Your task to perform on an android device: toggle airplane mode Image 0: 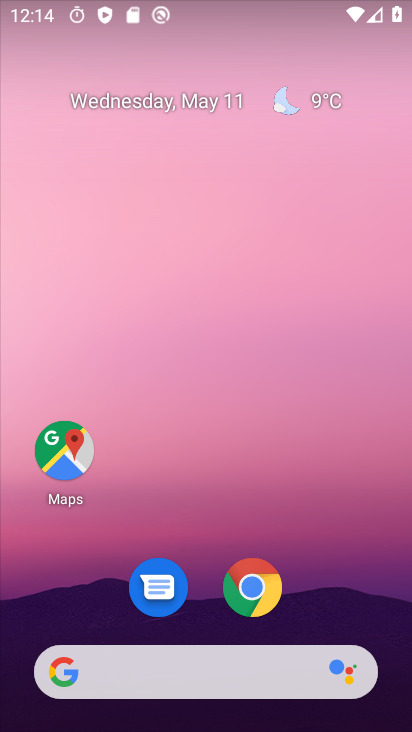
Step 0: drag from (370, 586) to (196, 70)
Your task to perform on an android device: toggle airplane mode Image 1: 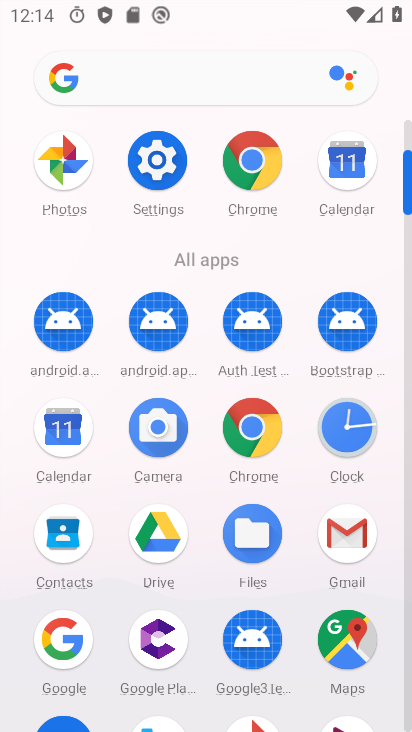
Step 1: click (170, 143)
Your task to perform on an android device: toggle airplane mode Image 2: 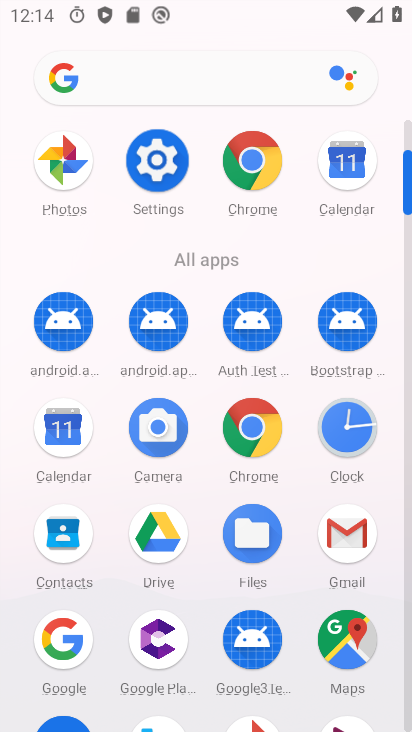
Step 2: click (170, 143)
Your task to perform on an android device: toggle airplane mode Image 3: 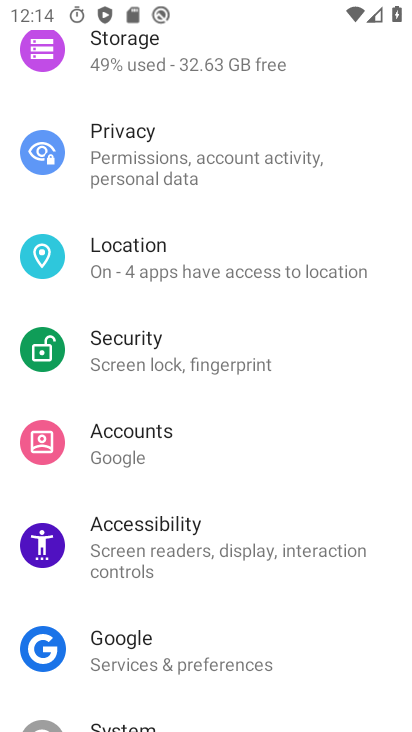
Step 3: drag from (151, 214) to (222, 459)
Your task to perform on an android device: toggle airplane mode Image 4: 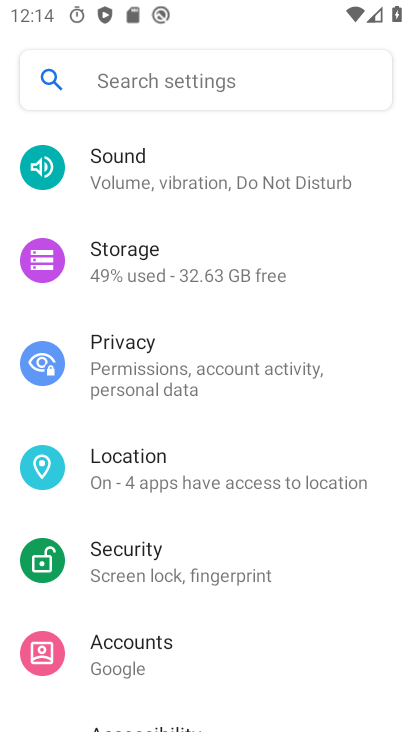
Step 4: drag from (167, 175) to (166, 534)
Your task to perform on an android device: toggle airplane mode Image 5: 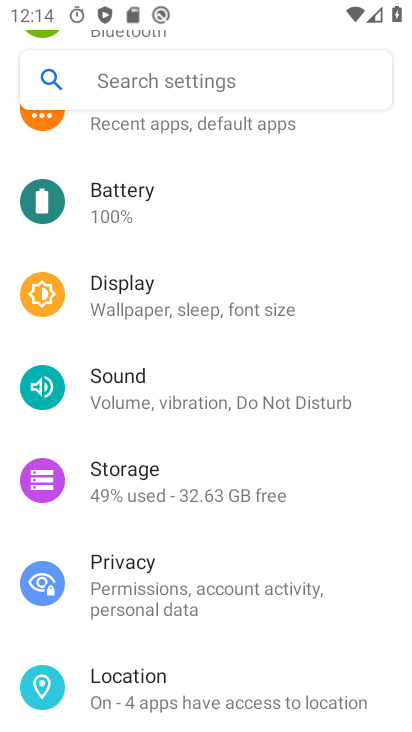
Step 5: drag from (167, 321) to (206, 568)
Your task to perform on an android device: toggle airplane mode Image 6: 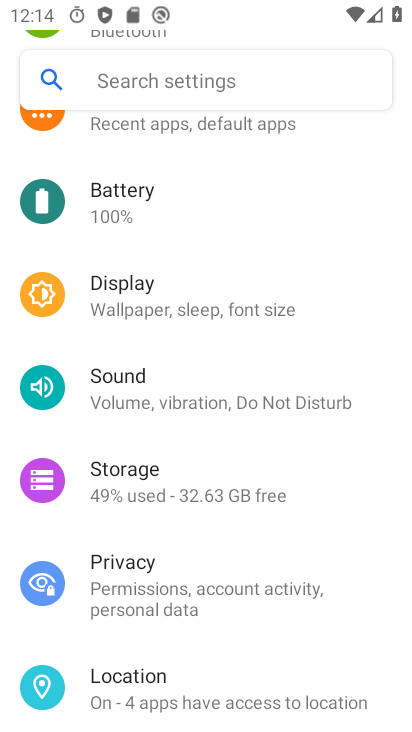
Step 6: click (203, 645)
Your task to perform on an android device: toggle airplane mode Image 7: 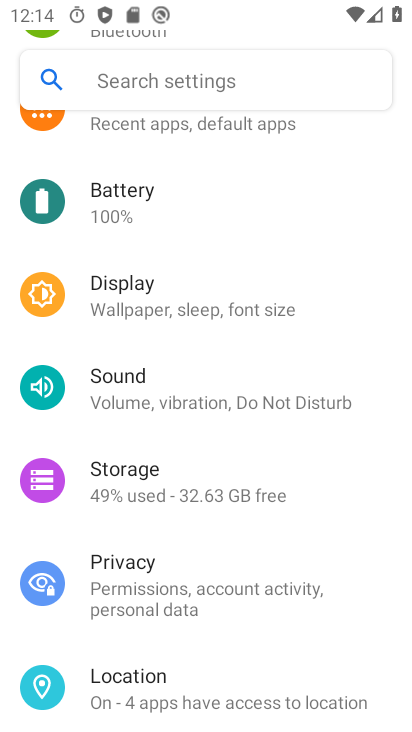
Step 7: drag from (199, 311) to (225, 544)
Your task to perform on an android device: toggle airplane mode Image 8: 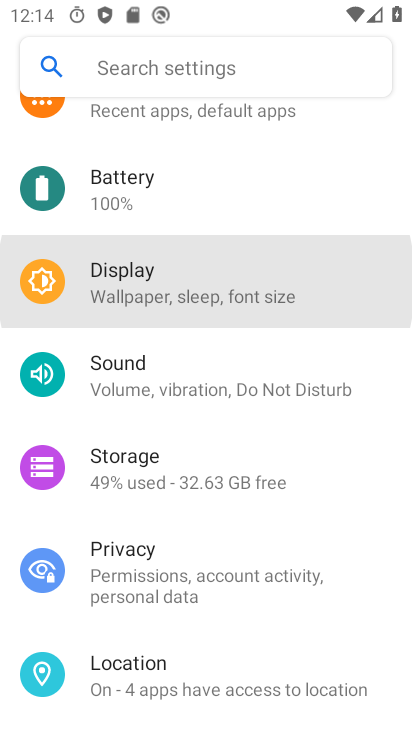
Step 8: drag from (173, 156) to (230, 685)
Your task to perform on an android device: toggle airplane mode Image 9: 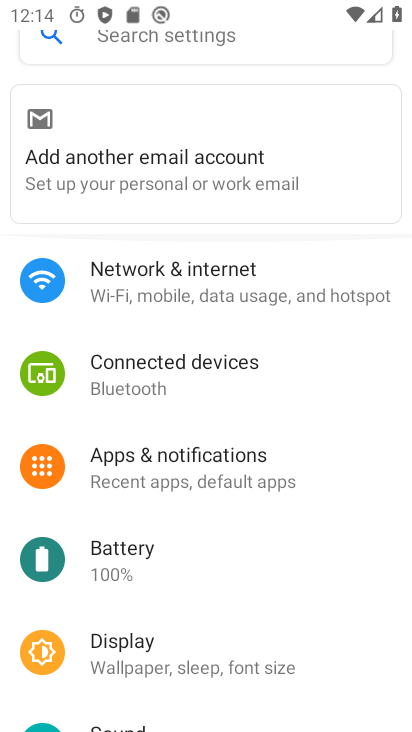
Step 9: drag from (139, 315) to (238, 645)
Your task to perform on an android device: toggle airplane mode Image 10: 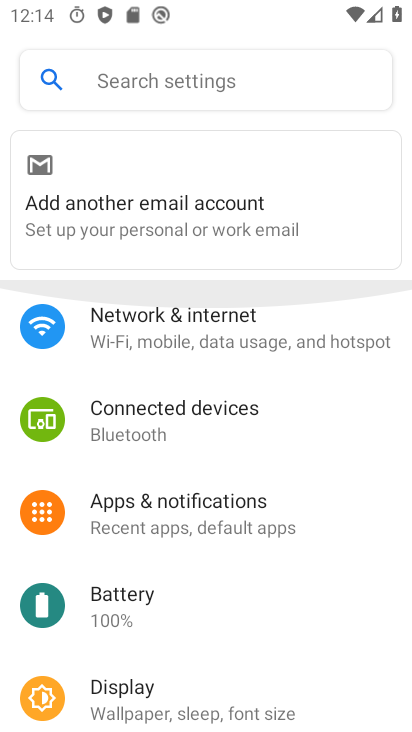
Step 10: drag from (332, 194) to (312, 658)
Your task to perform on an android device: toggle airplane mode Image 11: 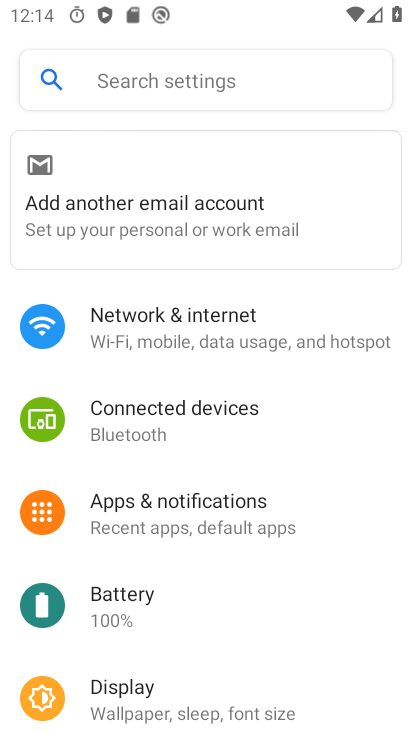
Step 11: click (167, 330)
Your task to perform on an android device: toggle airplane mode Image 12: 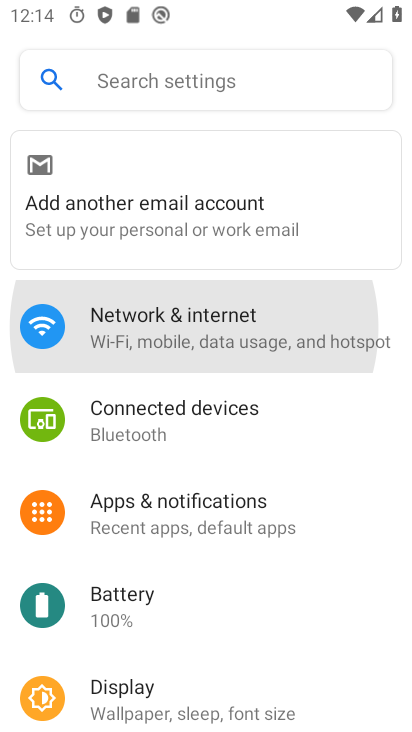
Step 12: click (164, 333)
Your task to perform on an android device: toggle airplane mode Image 13: 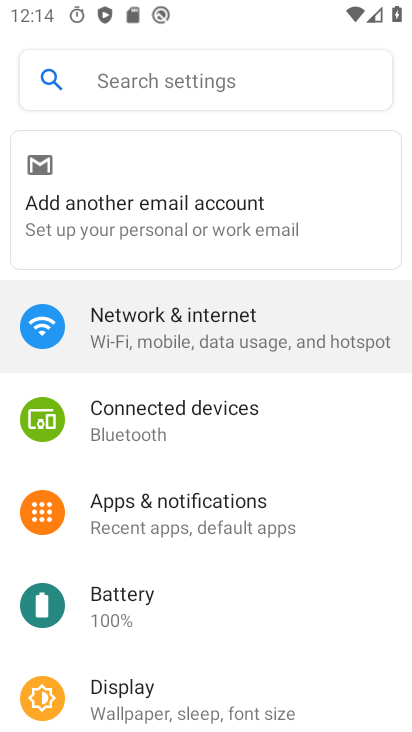
Step 13: click (164, 333)
Your task to perform on an android device: toggle airplane mode Image 14: 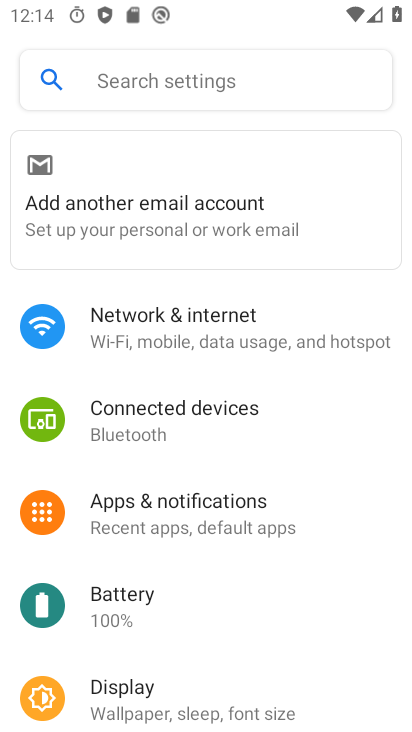
Step 14: click (163, 333)
Your task to perform on an android device: toggle airplane mode Image 15: 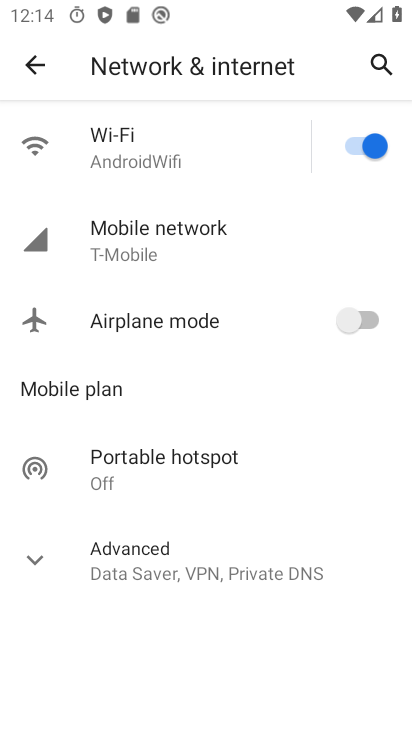
Step 15: click (347, 321)
Your task to perform on an android device: toggle airplane mode Image 16: 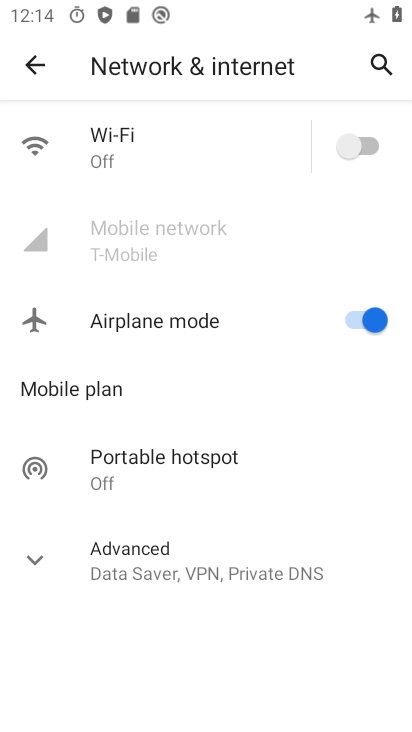
Step 16: task complete